Your task to perform on an android device: toggle notification dots Image 0: 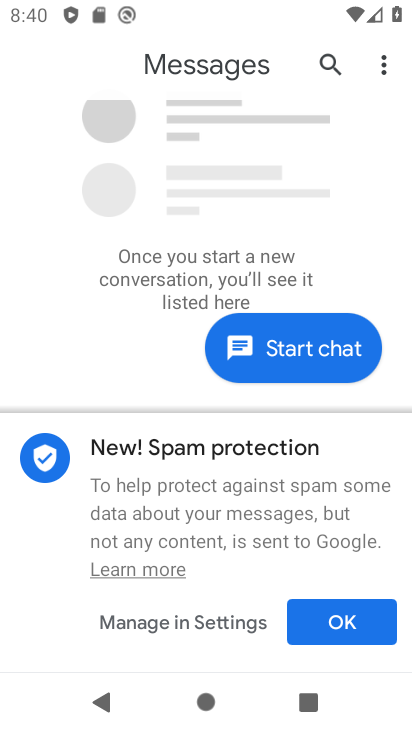
Step 0: press home button
Your task to perform on an android device: toggle notification dots Image 1: 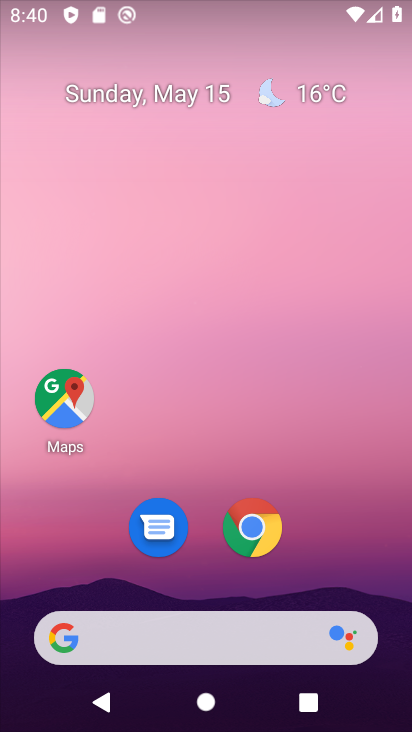
Step 1: drag from (352, 594) to (303, 3)
Your task to perform on an android device: toggle notification dots Image 2: 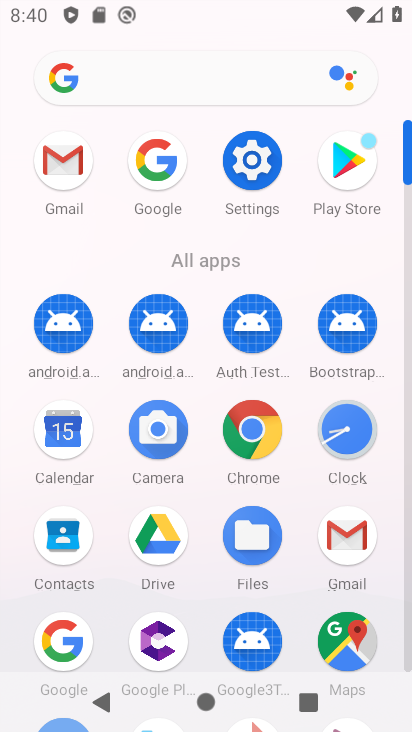
Step 2: click (244, 156)
Your task to perform on an android device: toggle notification dots Image 3: 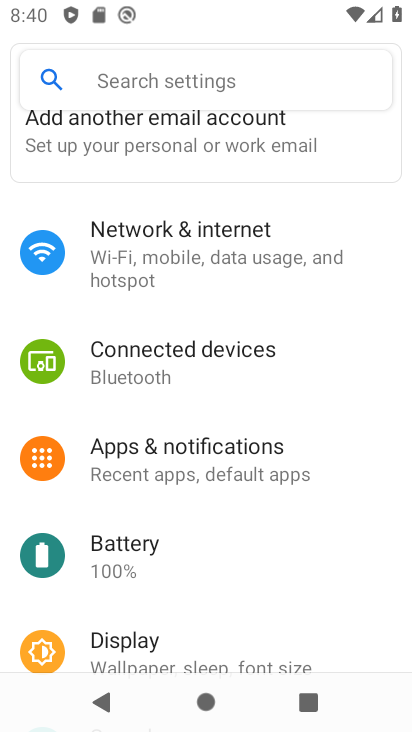
Step 3: click (146, 466)
Your task to perform on an android device: toggle notification dots Image 4: 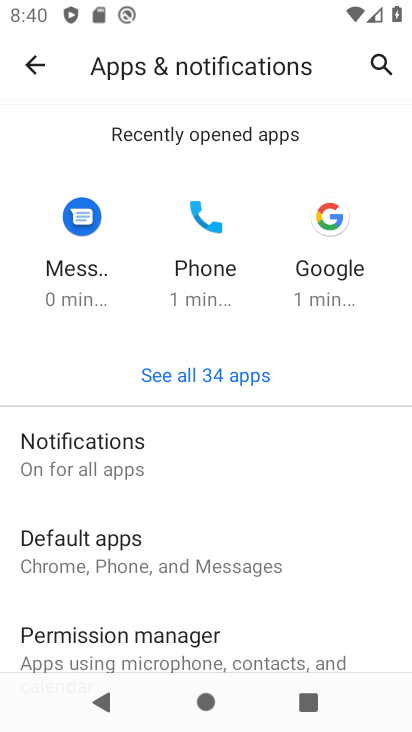
Step 4: click (86, 455)
Your task to perform on an android device: toggle notification dots Image 5: 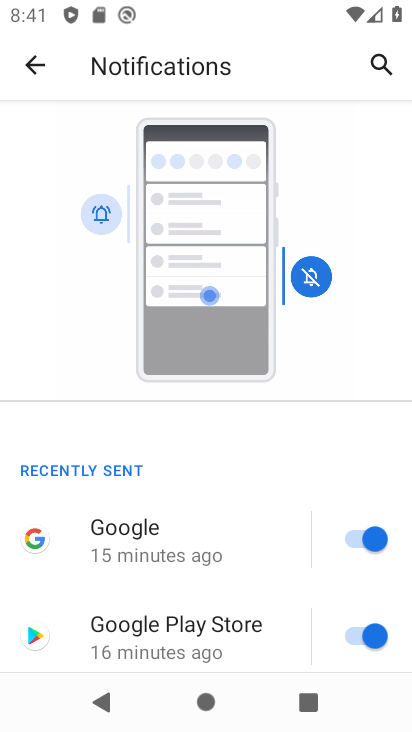
Step 5: drag from (148, 564) to (185, 28)
Your task to perform on an android device: toggle notification dots Image 6: 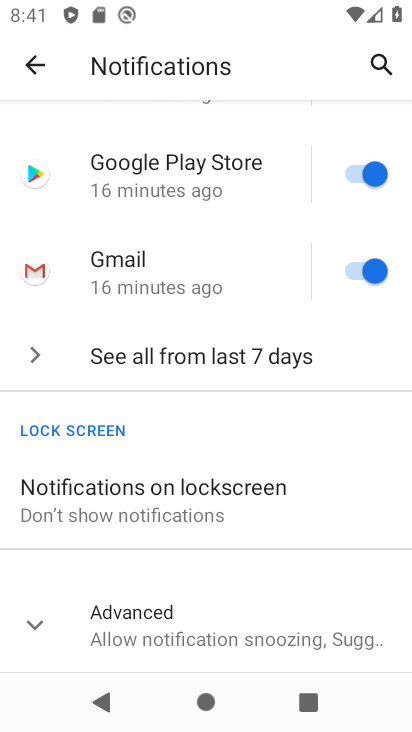
Step 6: click (35, 631)
Your task to perform on an android device: toggle notification dots Image 7: 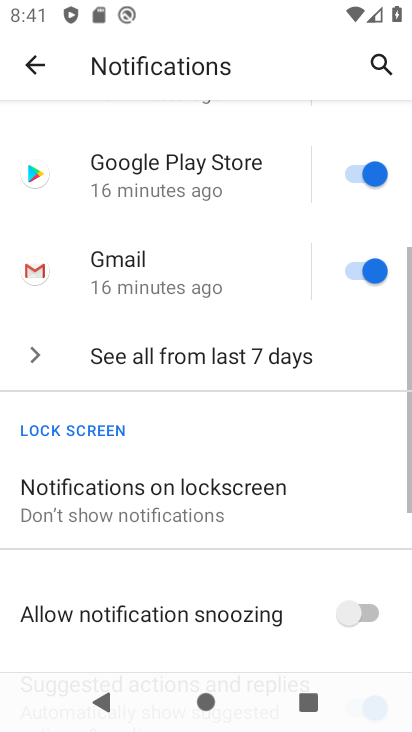
Step 7: drag from (177, 624) to (289, 6)
Your task to perform on an android device: toggle notification dots Image 8: 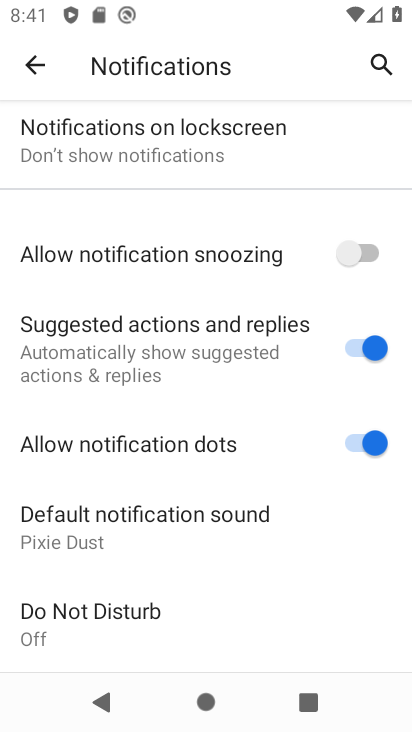
Step 8: click (384, 454)
Your task to perform on an android device: toggle notification dots Image 9: 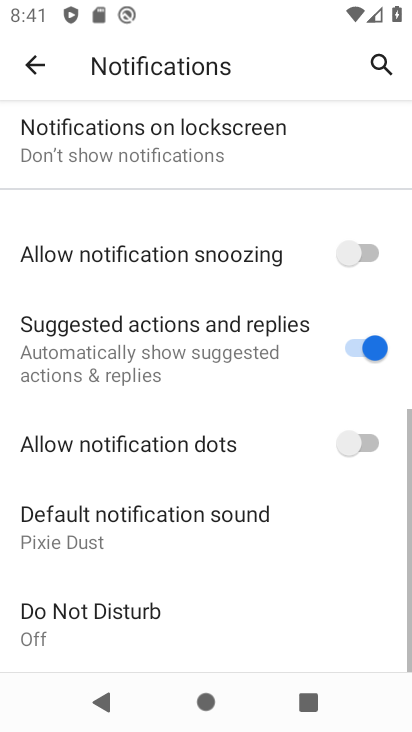
Step 9: task complete